Your task to perform on an android device: allow cookies in the chrome app Image 0: 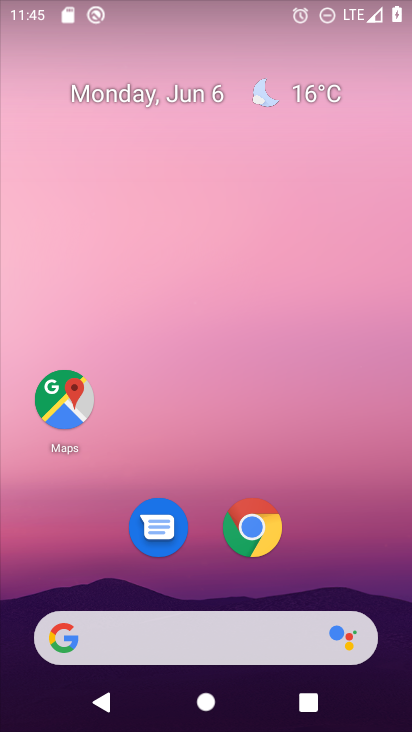
Step 0: drag from (357, 572) to (362, 162)
Your task to perform on an android device: allow cookies in the chrome app Image 1: 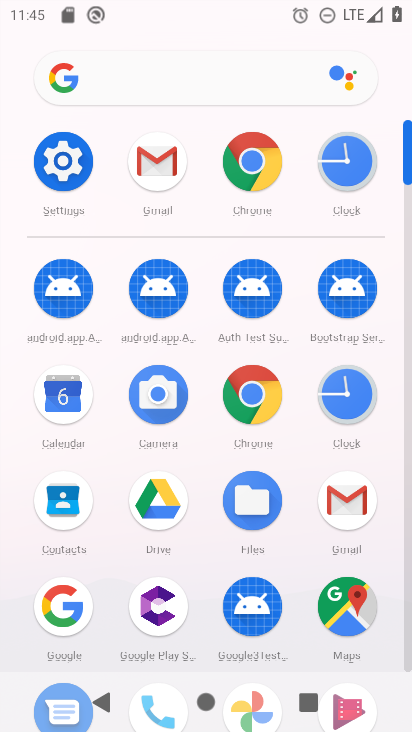
Step 1: click (266, 404)
Your task to perform on an android device: allow cookies in the chrome app Image 2: 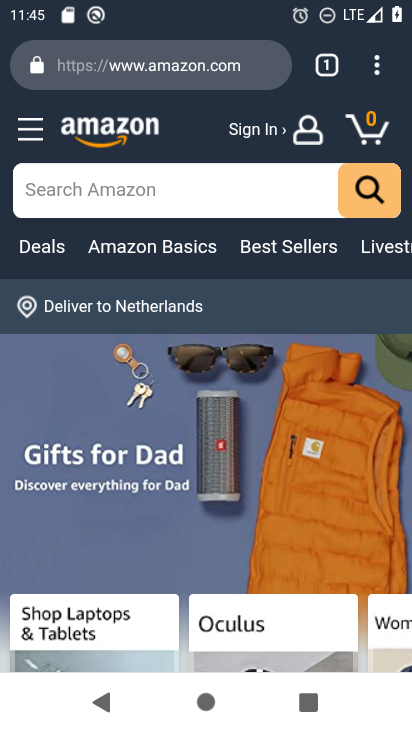
Step 2: click (379, 76)
Your task to perform on an android device: allow cookies in the chrome app Image 3: 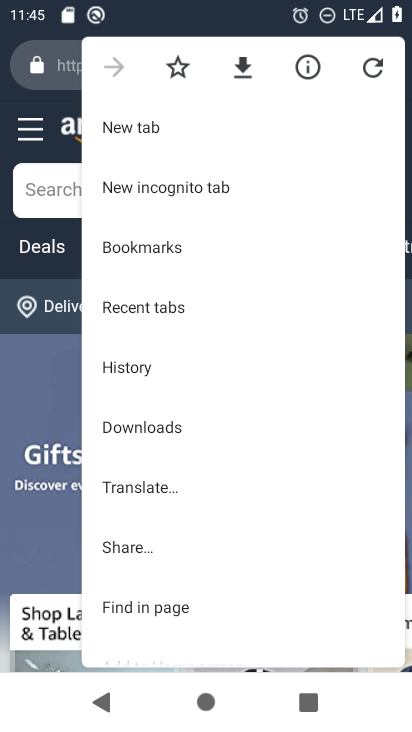
Step 3: drag from (313, 428) to (313, 297)
Your task to perform on an android device: allow cookies in the chrome app Image 4: 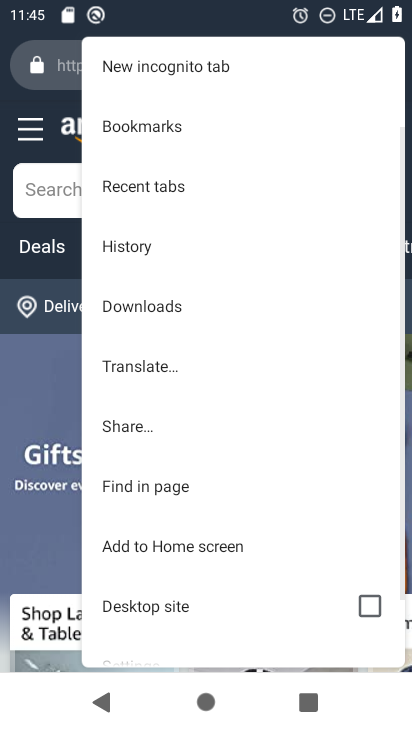
Step 4: drag from (306, 471) to (287, 263)
Your task to perform on an android device: allow cookies in the chrome app Image 5: 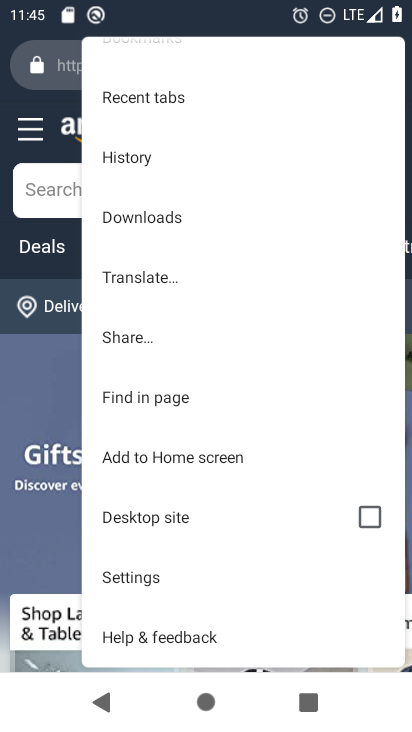
Step 5: drag from (274, 517) to (285, 311)
Your task to perform on an android device: allow cookies in the chrome app Image 6: 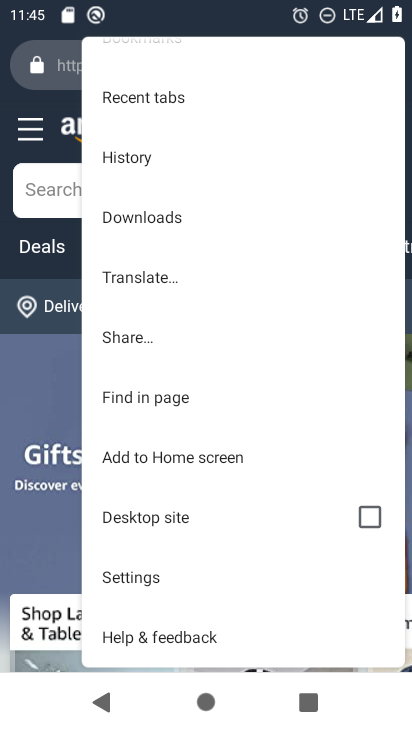
Step 6: click (161, 577)
Your task to perform on an android device: allow cookies in the chrome app Image 7: 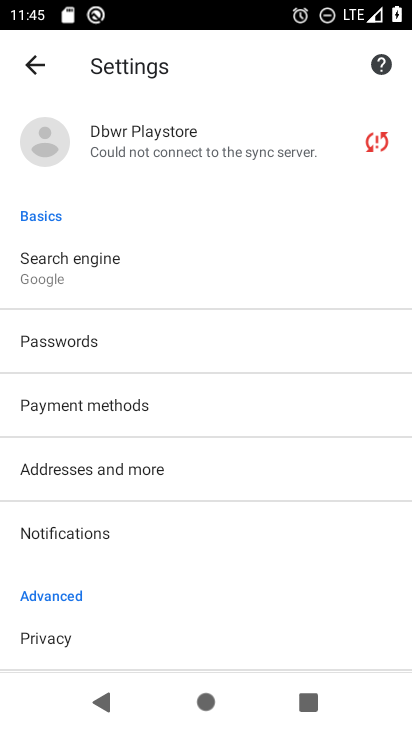
Step 7: drag from (294, 534) to (295, 382)
Your task to perform on an android device: allow cookies in the chrome app Image 8: 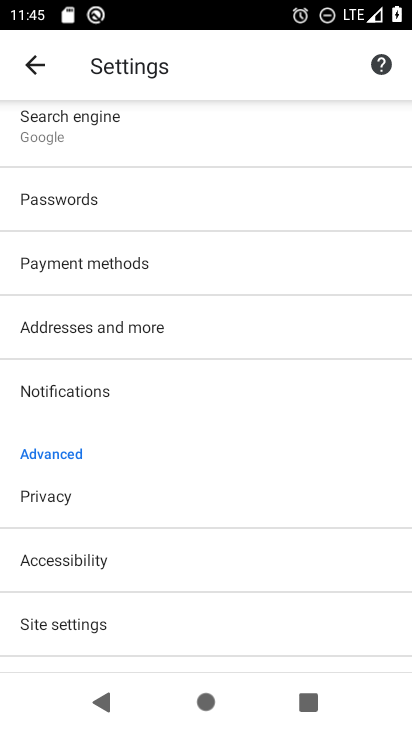
Step 8: drag from (287, 219) to (301, 415)
Your task to perform on an android device: allow cookies in the chrome app Image 9: 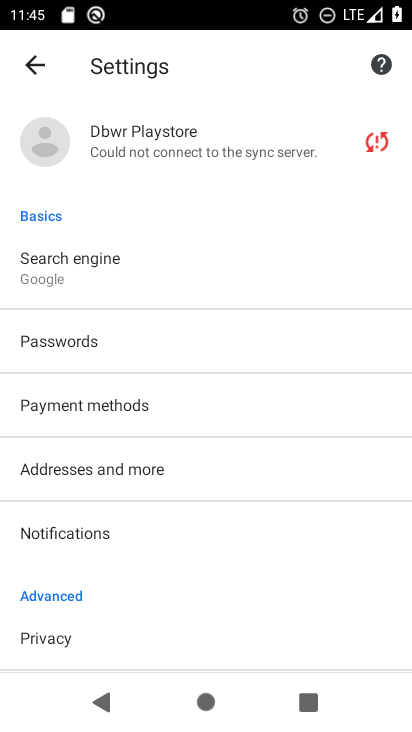
Step 9: drag from (286, 481) to (284, 339)
Your task to perform on an android device: allow cookies in the chrome app Image 10: 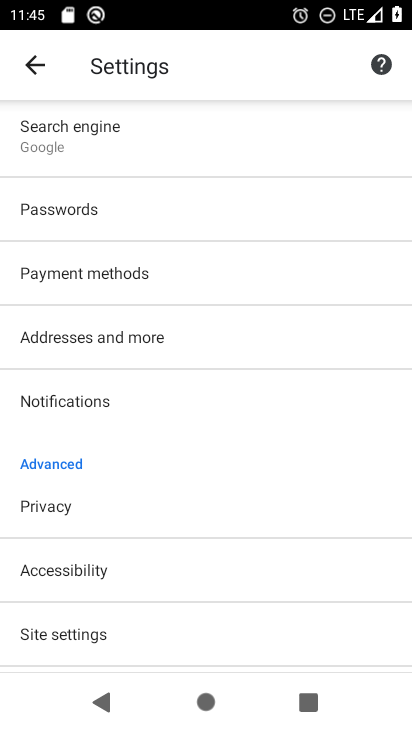
Step 10: drag from (271, 531) to (271, 351)
Your task to perform on an android device: allow cookies in the chrome app Image 11: 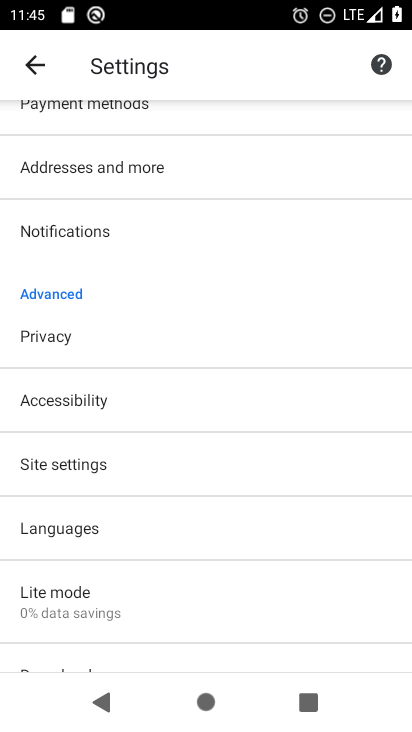
Step 11: drag from (270, 436) to (265, 255)
Your task to perform on an android device: allow cookies in the chrome app Image 12: 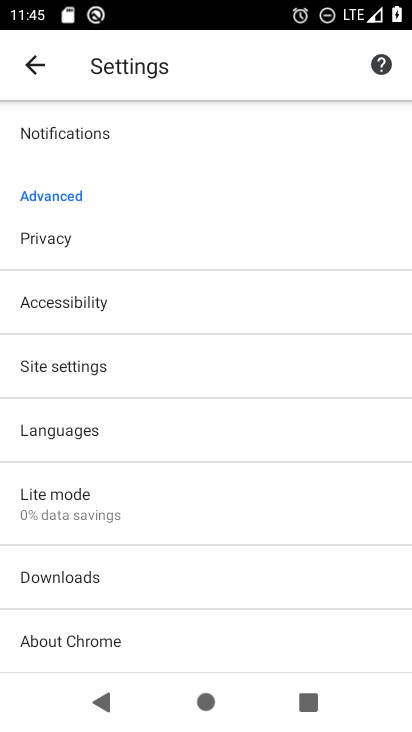
Step 12: drag from (268, 251) to (283, 428)
Your task to perform on an android device: allow cookies in the chrome app Image 13: 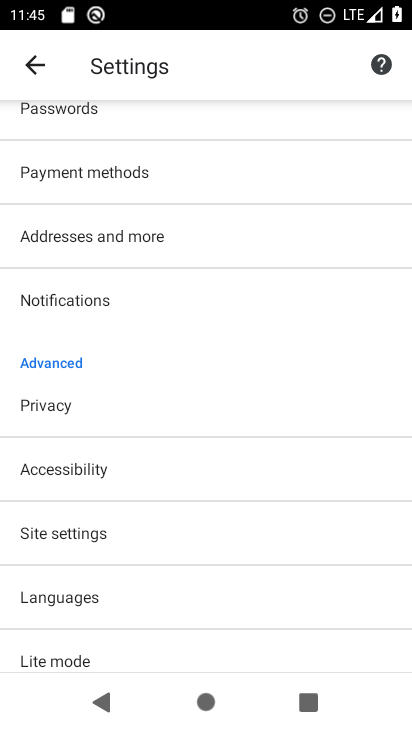
Step 13: drag from (270, 241) to (269, 444)
Your task to perform on an android device: allow cookies in the chrome app Image 14: 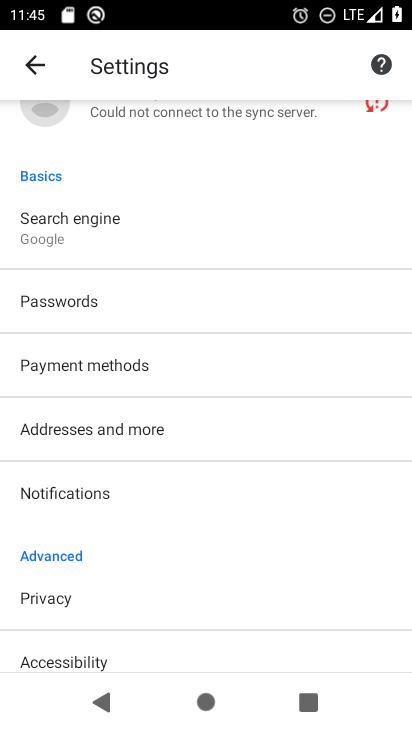
Step 14: drag from (252, 219) to (259, 434)
Your task to perform on an android device: allow cookies in the chrome app Image 15: 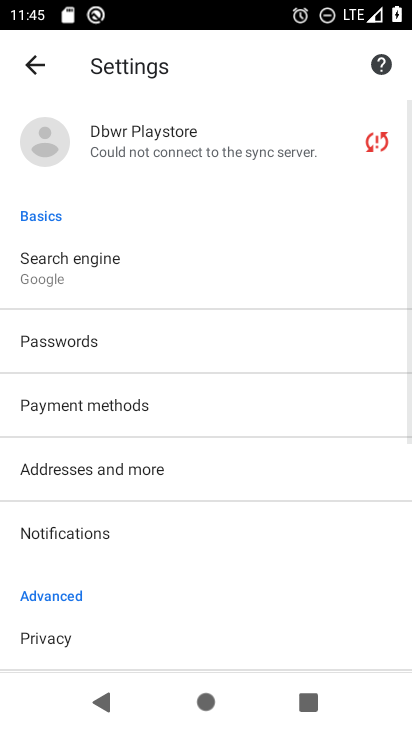
Step 15: drag from (262, 522) to (260, 364)
Your task to perform on an android device: allow cookies in the chrome app Image 16: 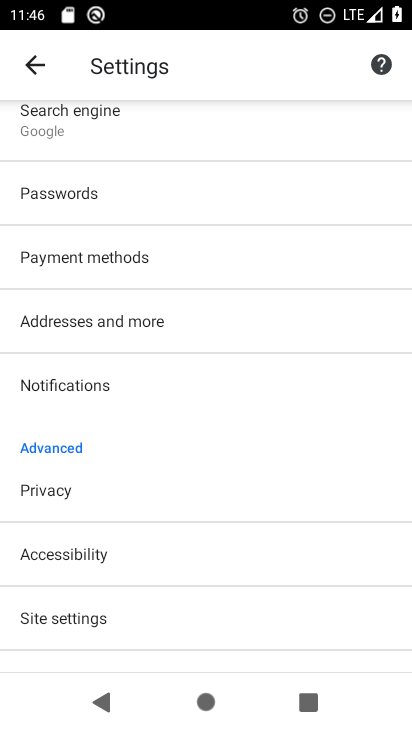
Step 16: drag from (249, 553) to (246, 345)
Your task to perform on an android device: allow cookies in the chrome app Image 17: 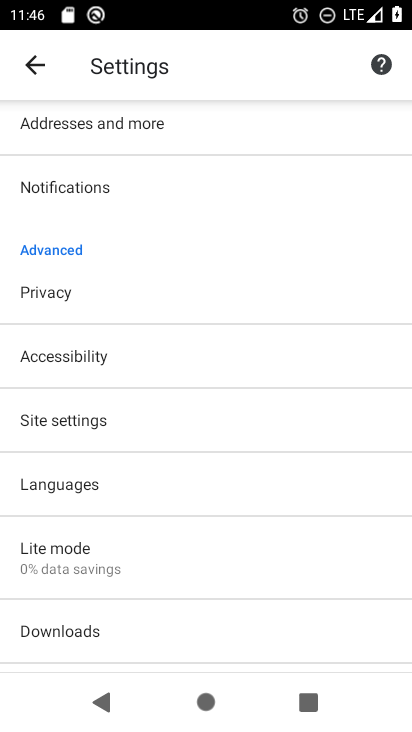
Step 17: drag from (232, 183) to (251, 369)
Your task to perform on an android device: allow cookies in the chrome app Image 18: 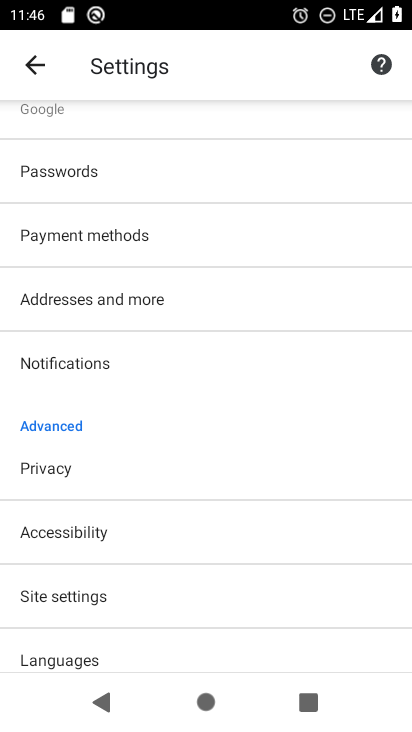
Step 18: drag from (245, 163) to (255, 338)
Your task to perform on an android device: allow cookies in the chrome app Image 19: 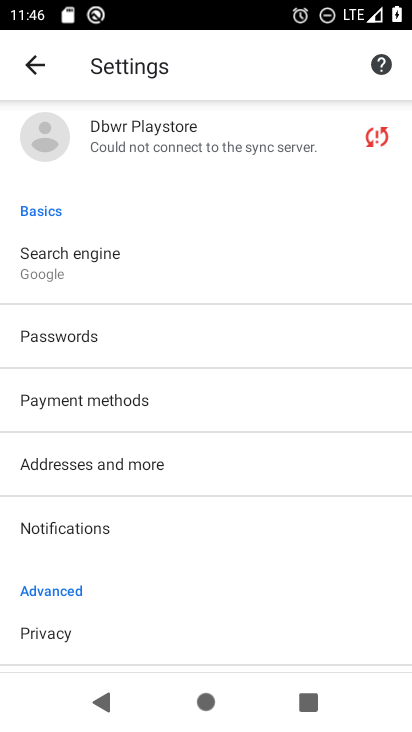
Step 19: drag from (262, 213) to (274, 370)
Your task to perform on an android device: allow cookies in the chrome app Image 20: 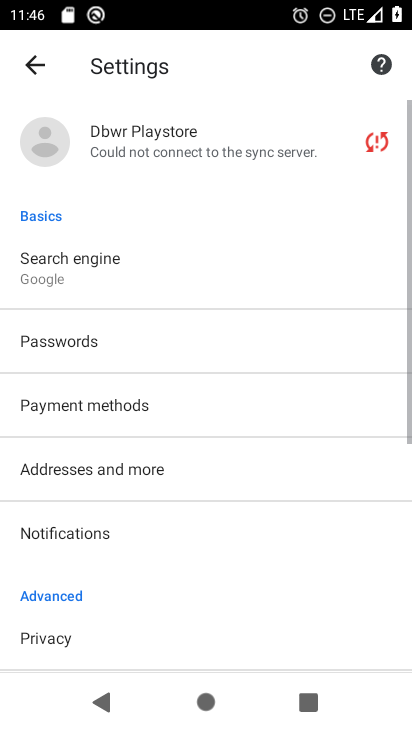
Step 20: drag from (269, 438) to (276, 302)
Your task to perform on an android device: allow cookies in the chrome app Image 21: 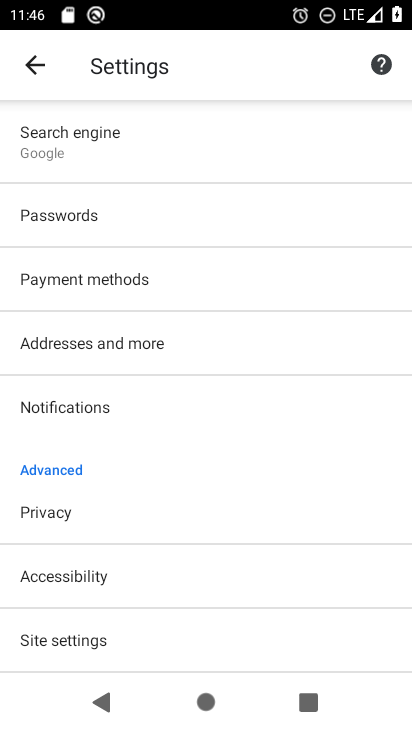
Step 21: drag from (257, 429) to (272, 303)
Your task to perform on an android device: allow cookies in the chrome app Image 22: 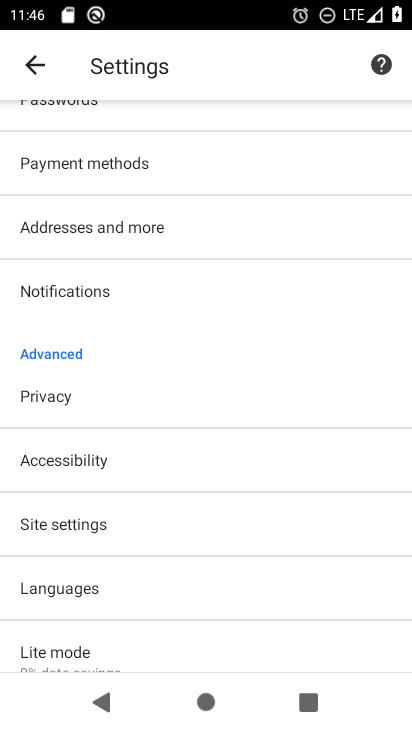
Step 22: drag from (261, 447) to (262, 324)
Your task to perform on an android device: allow cookies in the chrome app Image 23: 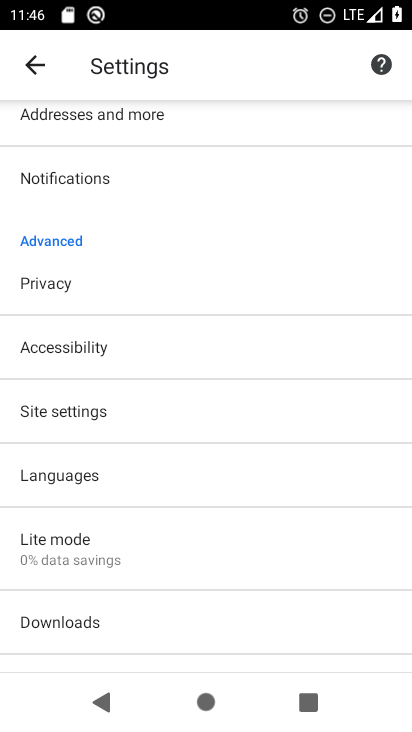
Step 23: drag from (253, 498) to (258, 310)
Your task to perform on an android device: allow cookies in the chrome app Image 24: 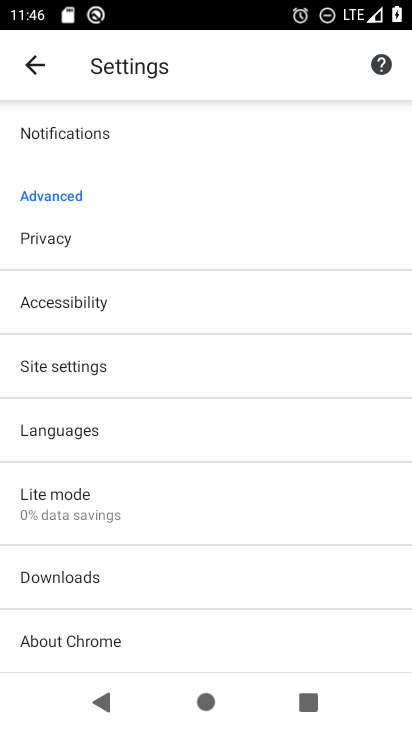
Step 24: click (186, 370)
Your task to perform on an android device: allow cookies in the chrome app Image 25: 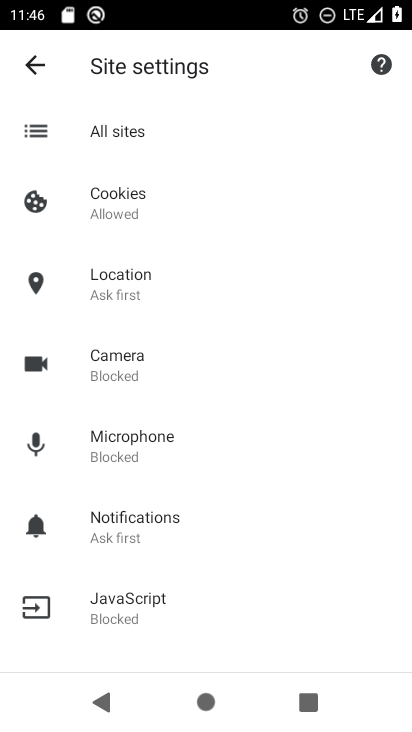
Step 25: drag from (293, 210) to (299, 417)
Your task to perform on an android device: allow cookies in the chrome app Image 26: 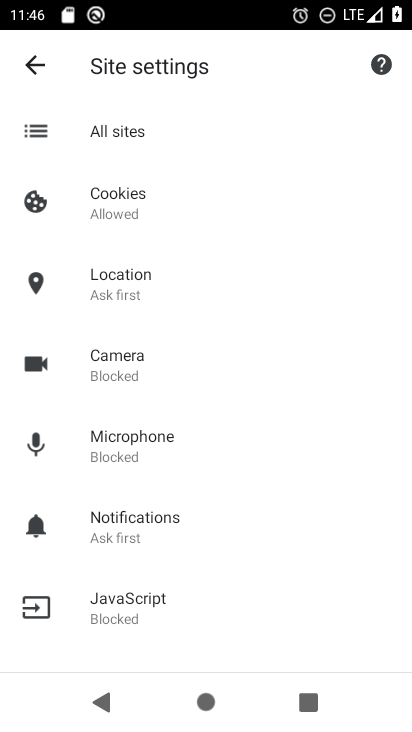
Step 26: drag from (290, 430) to (303, 253)
Your task to perform on an android device: allow cookies in the chrome app Image 27: 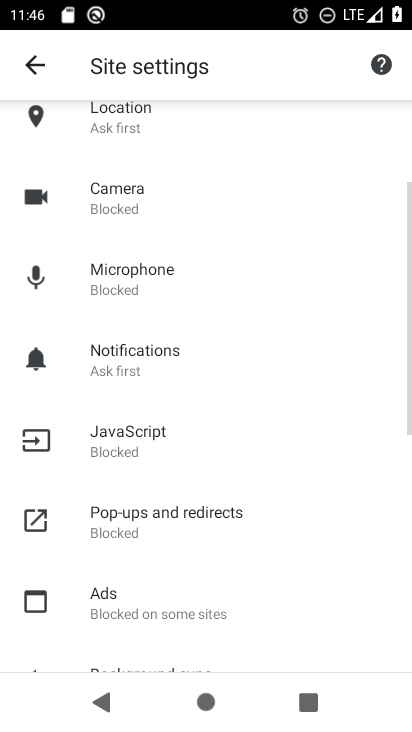
Step 27: drag from (290, 444) to (302, 279)
Your task to perform on an android device: allow cookies in the chrome app Image 28: 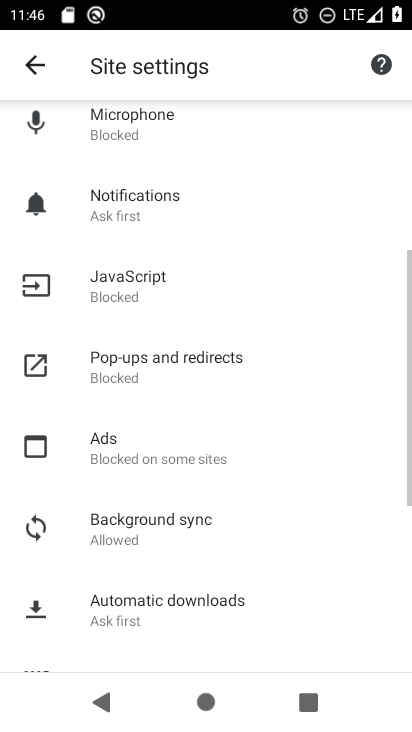
Step 28: drag from (300, 483) to (300, 268)
Your task to perform on an android device: allow cookies in the chrome app Image 29: 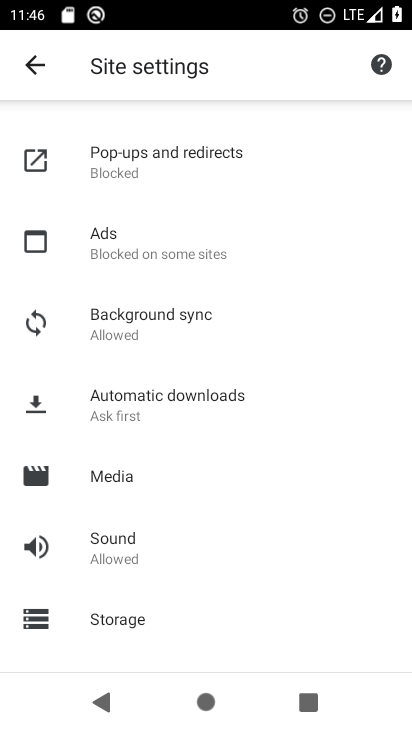
Step 29: drag from (293, 495) to (311, 243)
Your task to perform on an android device: allow cookies in the chrome app Image 30: 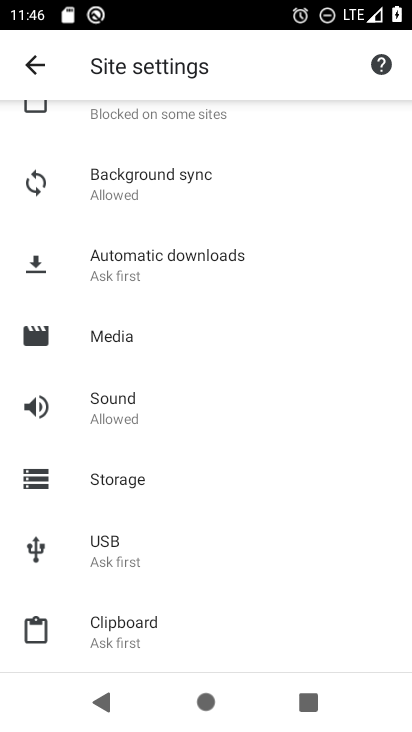
Step 30: drag from (320, 490) to (316, 238)
Your task to perform on an android device: allow cookies in the chrome app Image 31: 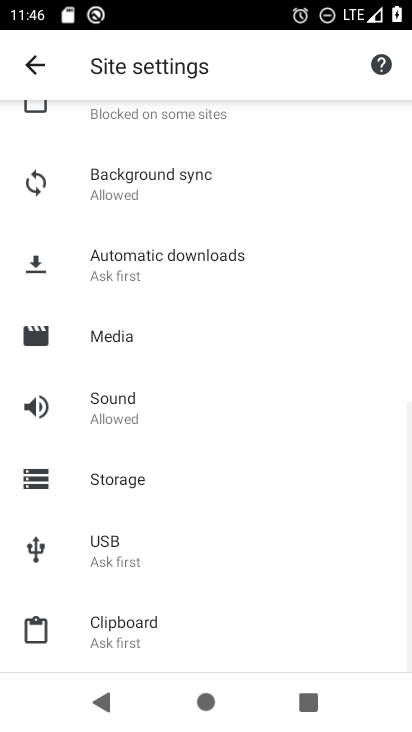
Step 31: drag from (309, 269) to (309, 447)
Your task to perform on an android device: allow cookies in the chrome app Image 32: 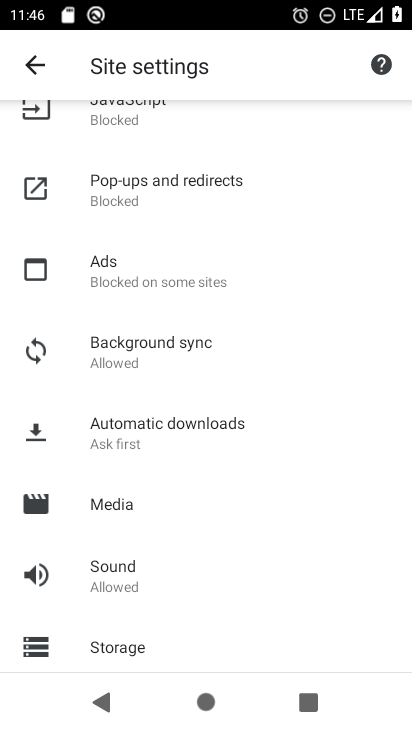
Step 32: drag from (302, 221) to (307, 384)
Your task to perform on an android device: allow cookies in the chrome app Image 33: 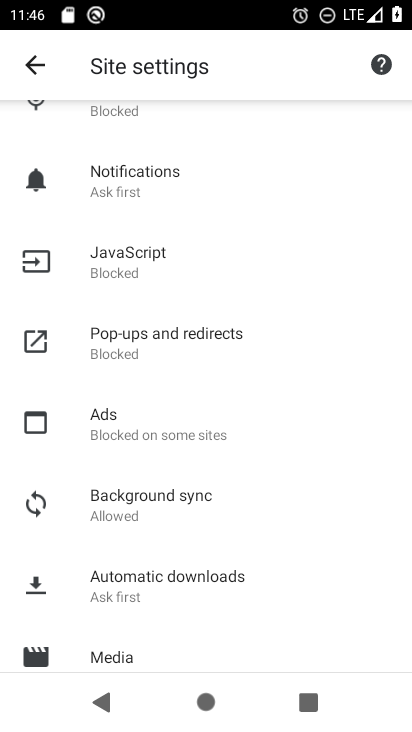
Step 33: drag from (299, 214) to (304, 335)
Your task to perform on an android device: allow cookies in the chrome app Image 34: 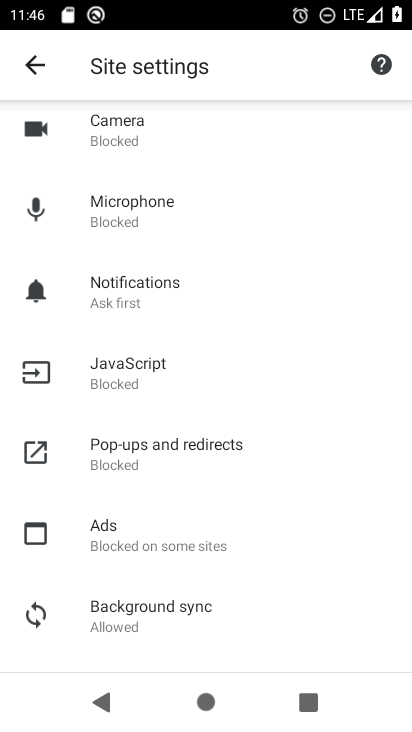
Step 34: drag from (287, 202) to (296, 405)
Your task to perform on an android device: allow cookies in the chrome app Image 35: 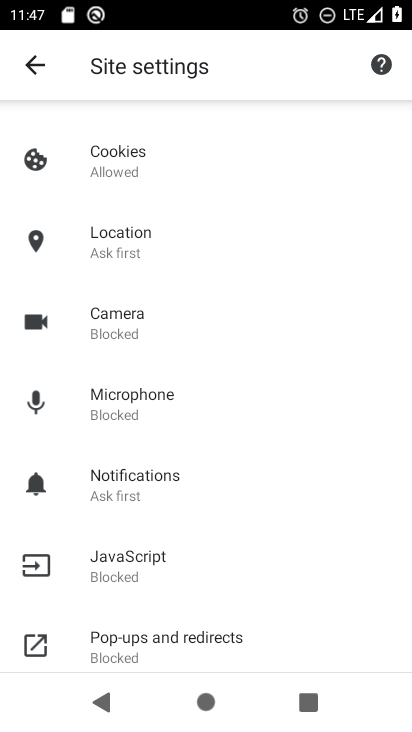
Step 35: click (146, 169)
Your task to perform on an android device: allow cookies in the chrome app Image 36: 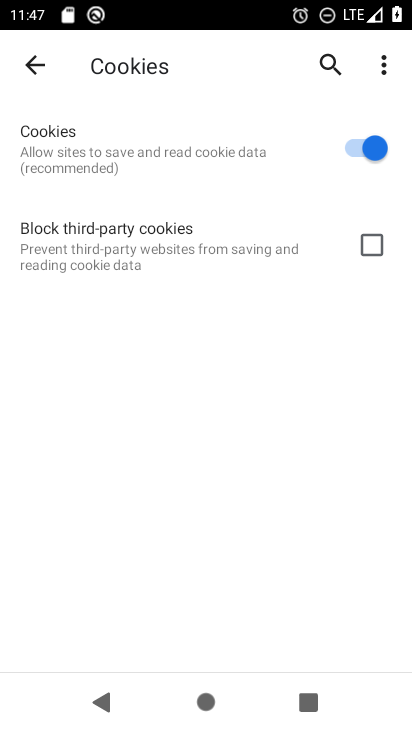
Step 36: task complete